Your task to perform on an android device: Go to Android settings Image 0: 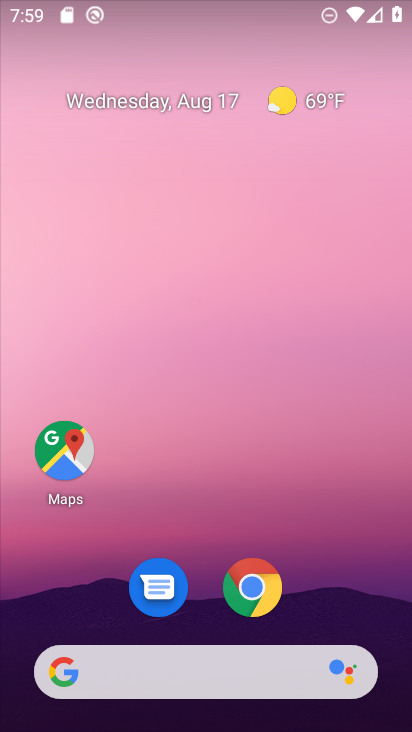
Step 0: drag from (13, 694) to (216, 306)
Your task to perform on an android device: Go to Android settings Image 1: 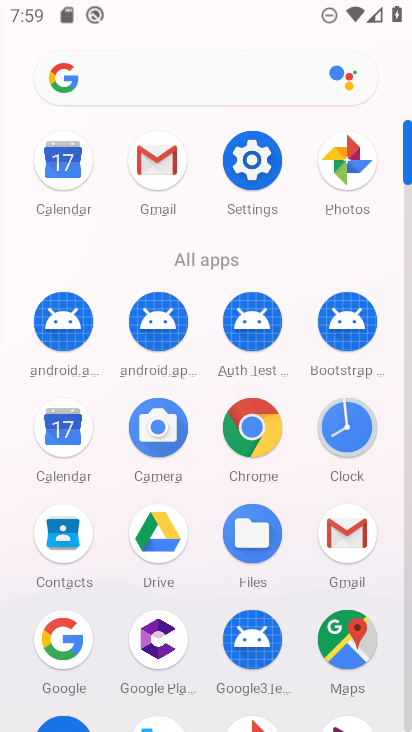
Step 1: click (262, 151)
Your task to perform on an android device: Go to Android settings Image 2: 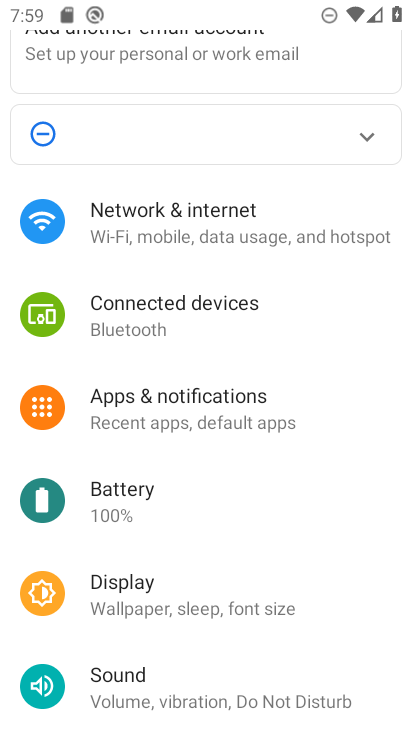
Step 2: drag from (371, 655) to (403, 3)
Your task to perform on an android device: Go to Android settings Image 3: 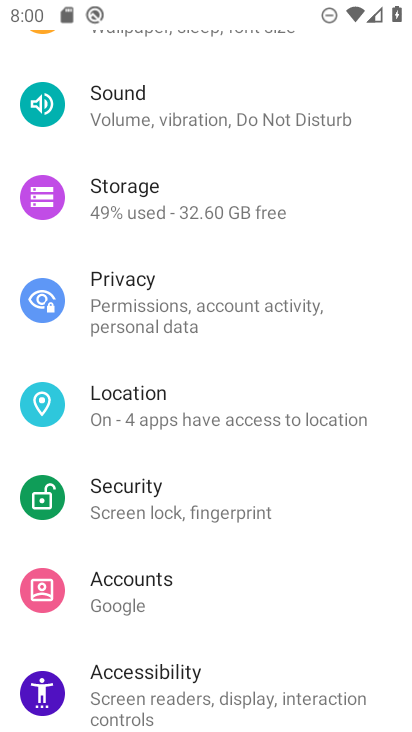
Step 3: drag from (367, 661) to (333, 143)
Your task to perform on an android device: Go to Android settings Image 4: 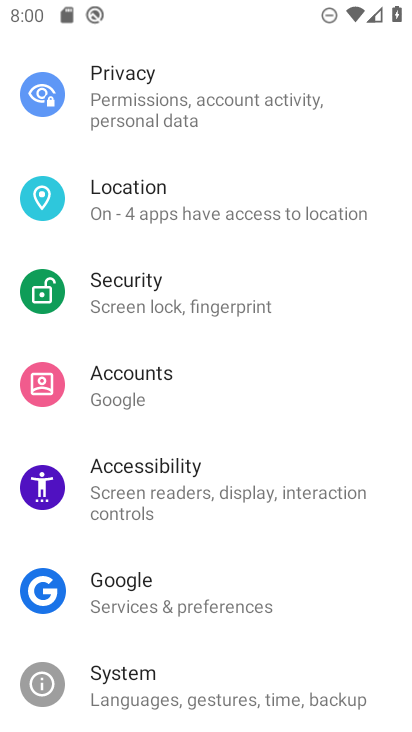
Step 4: drag from (363, 634) to (294, 164)
Your task to perform on an android device: Go to Android settings Image 5: 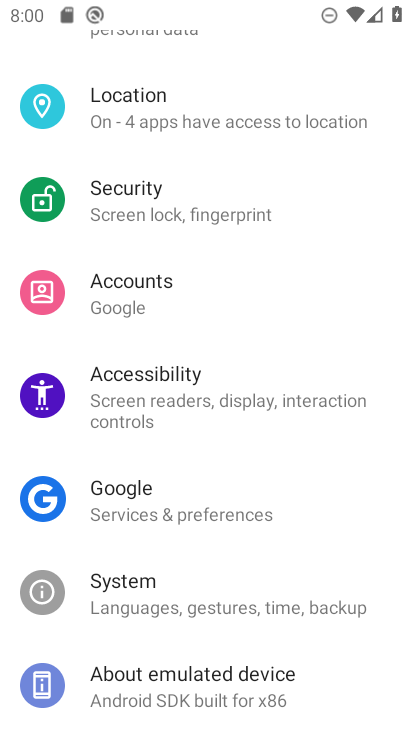
Step 5: click (198, 690)
Your task to perform on an android device: Go to Android settings Image 6: 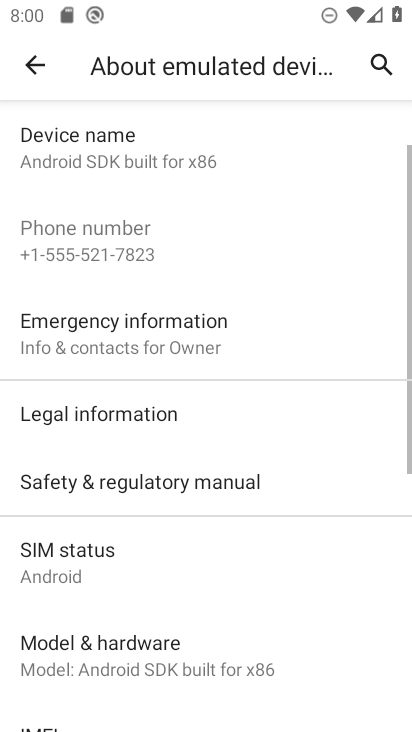
Step 6: drag from (313, 683) to (321, 257)
Your task to perform on an android device: Go to Android settings Image 7: 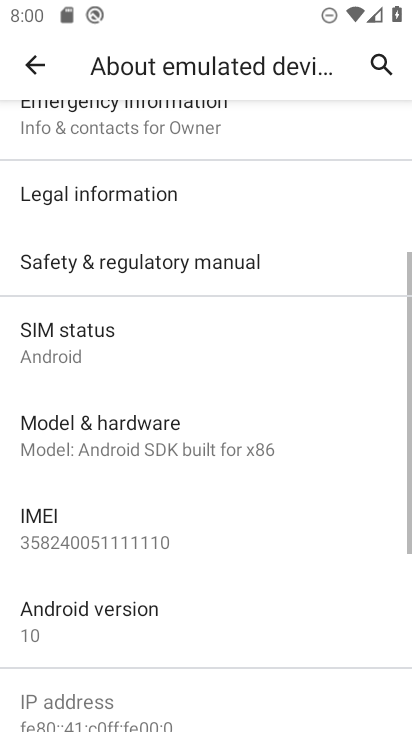
Step 7: click (96, 652)
Your task to perform on an android device: Go to Android settings Image 8: 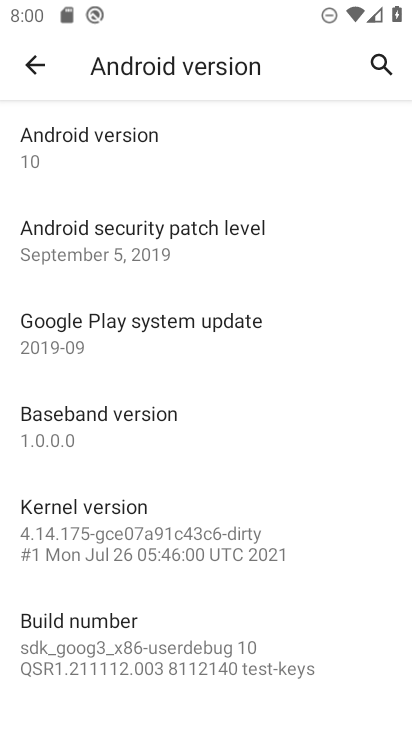
Step 8: task complete